Your task to perform on an android device: turn off smart reply in the gmail app Image 0: 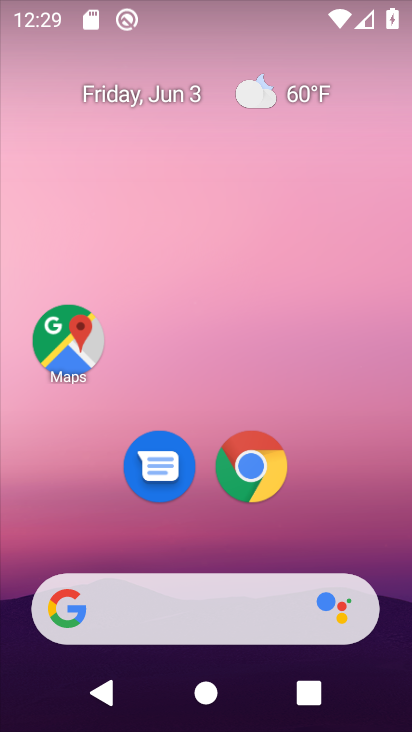
Step 0: drag from (200, 567) to (168, 146)
Your task to perform on an android device: turn off smart reply in the gmail app Image 1: 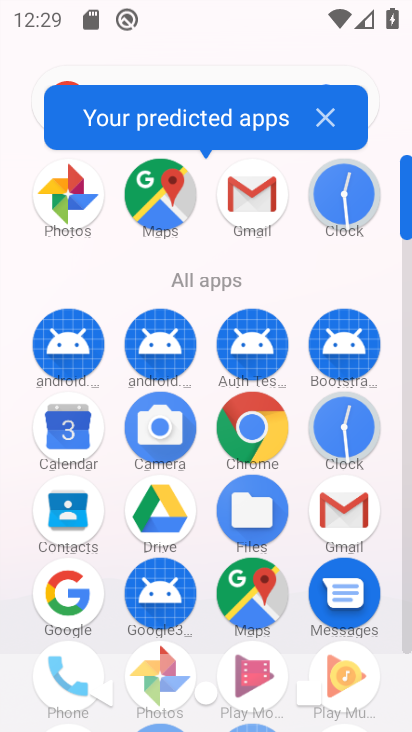
Step 1: drag from (194, 578) to (194, 197)
Your task to perform on an android device: turn off smart reply in the gmail app Image 2: 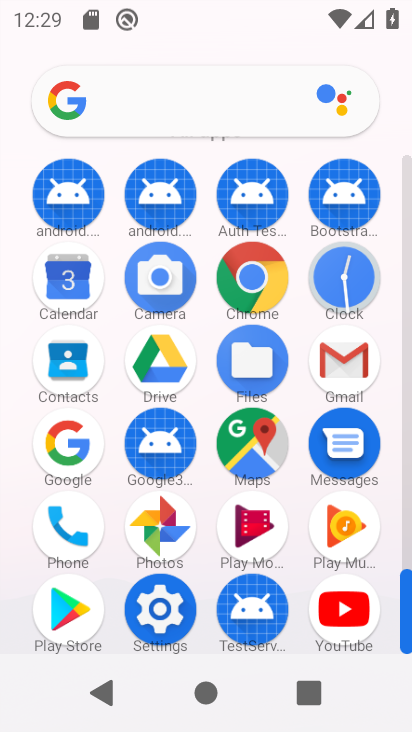
Step 2: click (359, 370)
Your task to perform on an android device: turn off smart reply in the gmail app Image 3: 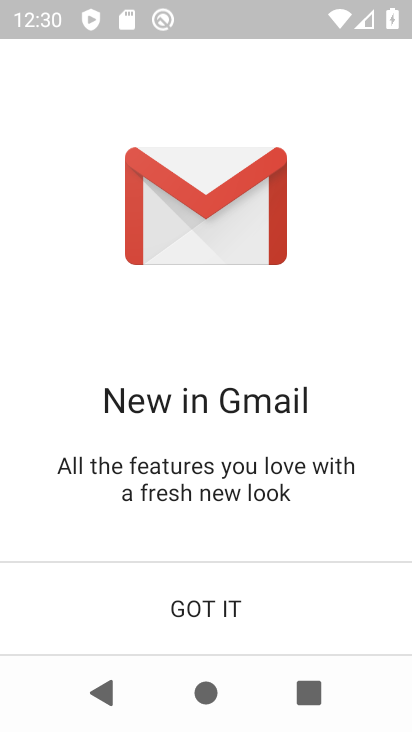
Step 3: click (210, 604)
Your task to perform on an android device: turn off smart reply in the gmail app Image 4: 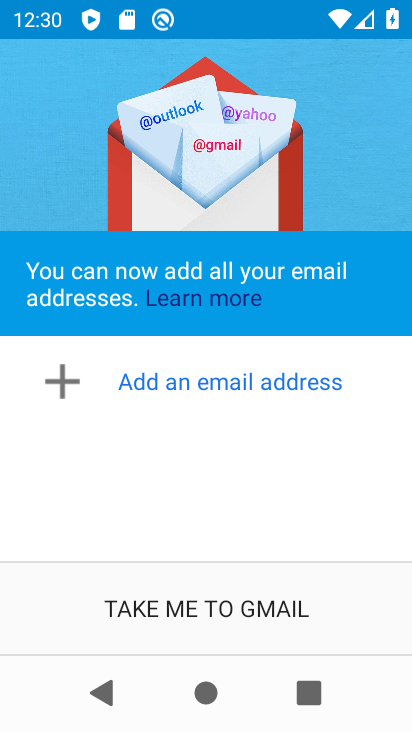
Step 4: click (209, 603)
Your task to perform on an android device: turn off smart reply in the gmail app Image 5: 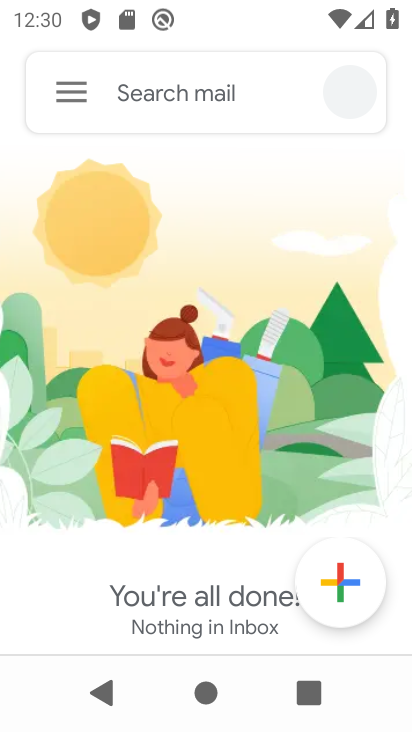
Step 5: click (64, 104)
Your task to perform on an android device: turn off smart reply in the gmail app Image 6: 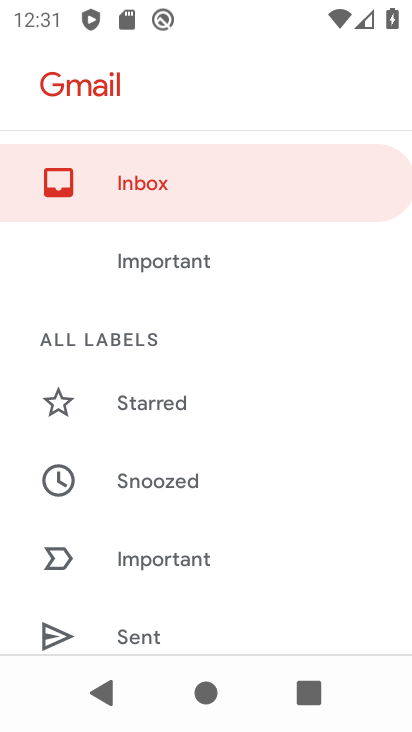
Step 6: drag from (149, 630) to (164, 225)
Your task to perform on an android device: turn off smart reply in the gmail app Image 7: 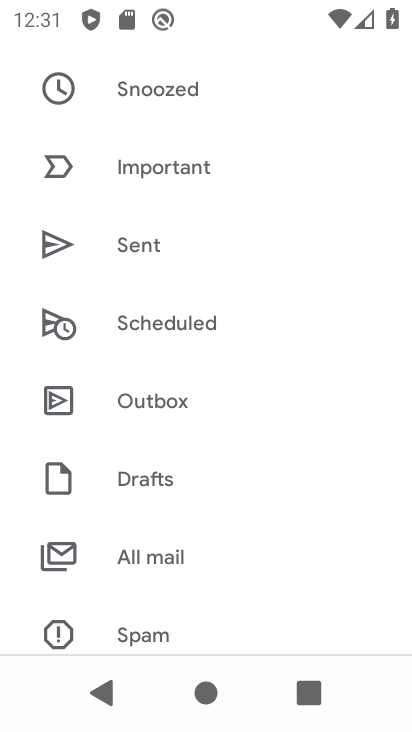
Step 7: drag from (158, 644) to (149, 363)
Your task to perform on an android device: turn off smart reply in the gmail app Image 8: 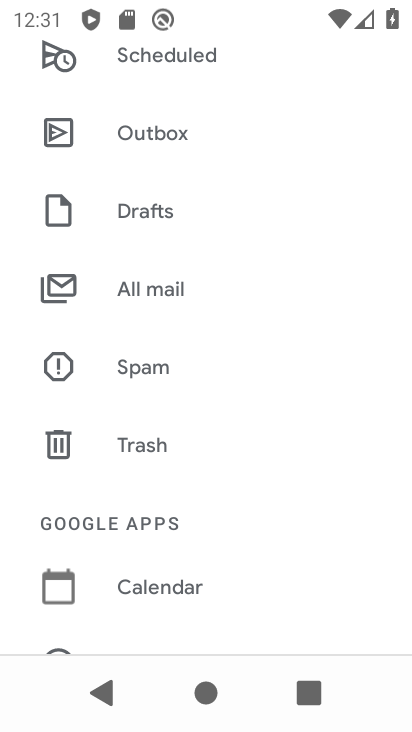
Step 8: drag from (146, 641) to (163, 349)
Your task to perform on an android device: turn off smart reply in the gmail app Image 9: 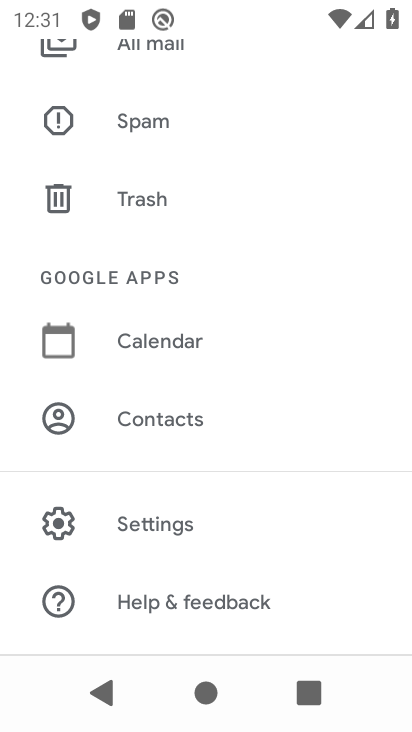
Step 9: click (168, 525)
Your task to perform on an android device: turn off smart reply in the gmail app Image 10: 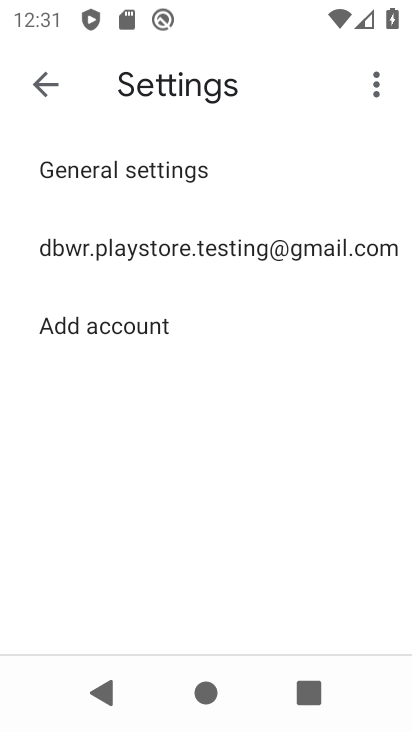
Step 10: click (107, 246)
Your task to perform on an android device: turn off smart reply in the gmail app Image 11: 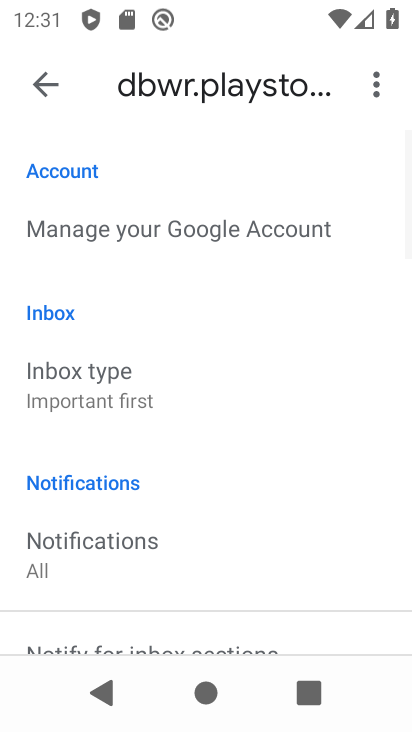
Step 11: drag from (143, 596) to (143, 273)
Your task to perform on an android device: turn off smart reply in the gmail app Image 12: 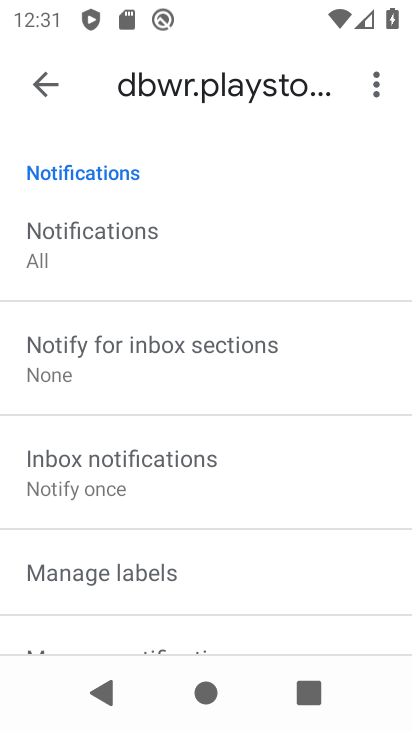
Step 12: drag from (173, 596) to (173, 229)
Your task to perform on an android device: turn off smart reply in the gmail app Image 13: 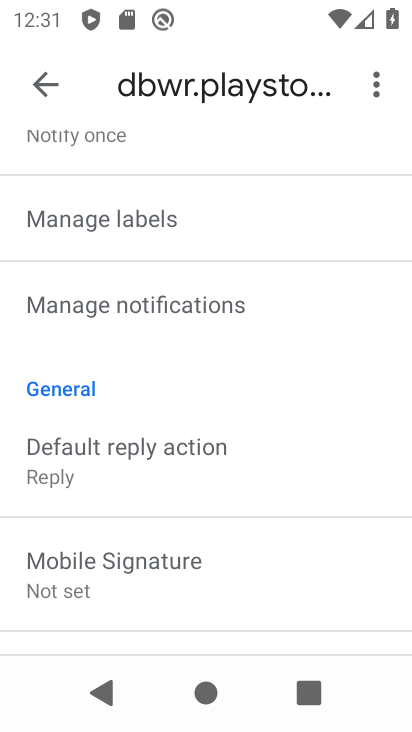
Step 13: drag from (132, 528) to (132, 248)
Your task to perform on an android device: turn off smart reply in the gmail app Image 14: 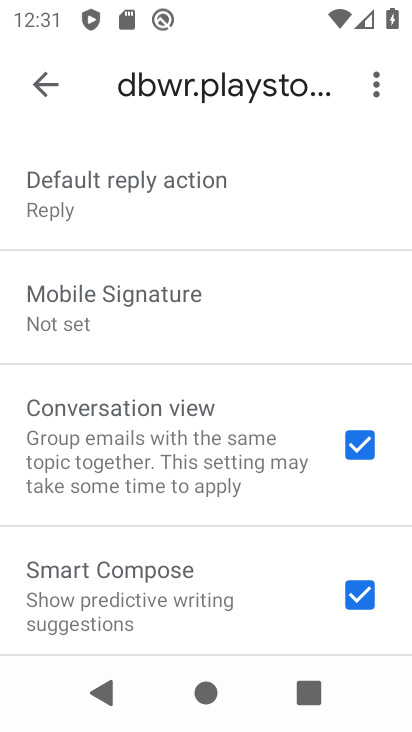
Step 14: drag from (165, 595) to (165, 330)
Your task to perform on an android device: turn off smart reply in the gmail app Image 15: 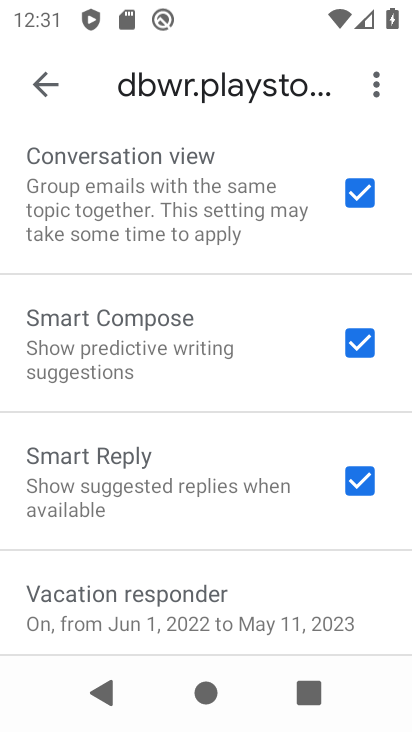
Step 15: click (361, 479)
Your task to perform on an android device: turn off smart reply in the gmail app Image 16: 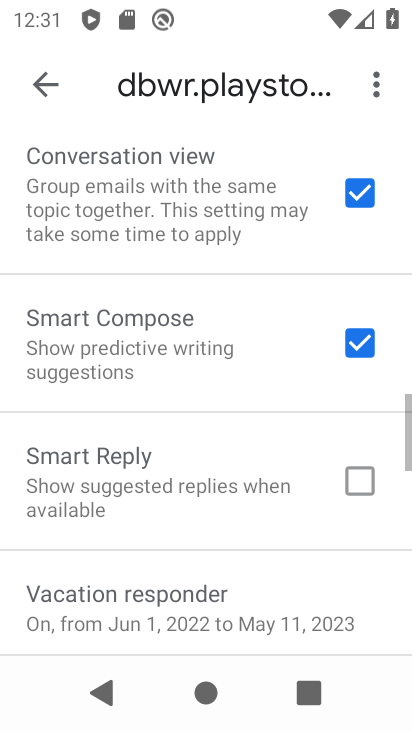
Step 16: task complete